Your task to perform on an android device: turn on translation in the chrome app Image 0: 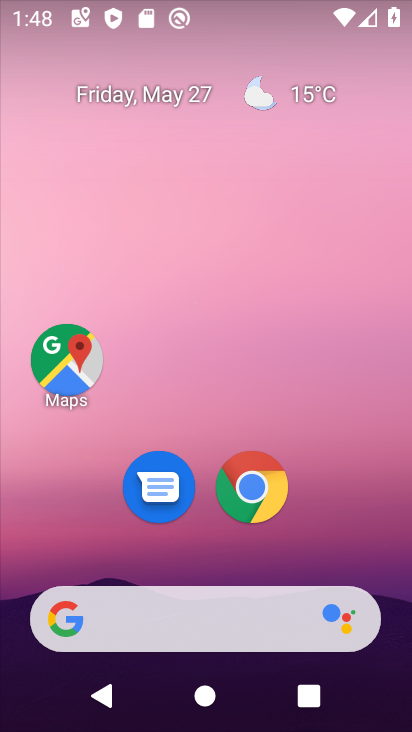
Step 0: click (252, 478)
Your task to perform on an android device: turn on translation in the chrome app Image 1: 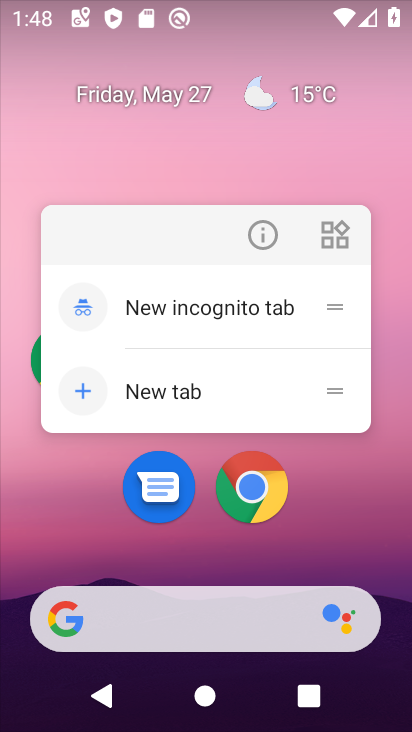
Step 1: click (257, 483)
Your task to perform on an android device: turn on translation in the chrome app Image 2: 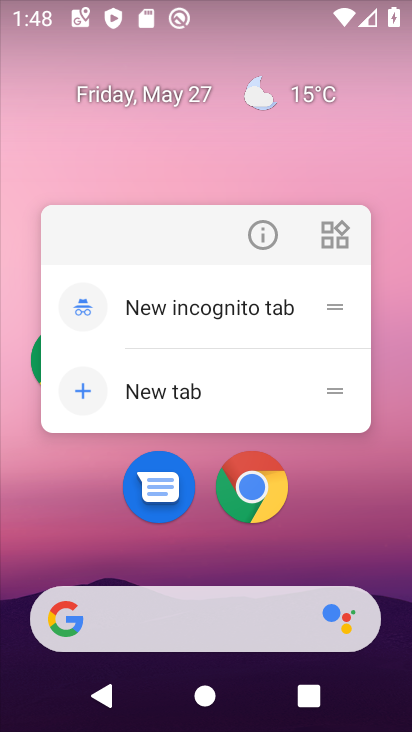
Step 2: click (266, 495)
Your task to perform on an android device: turn on translation in the chrome app Image 3: 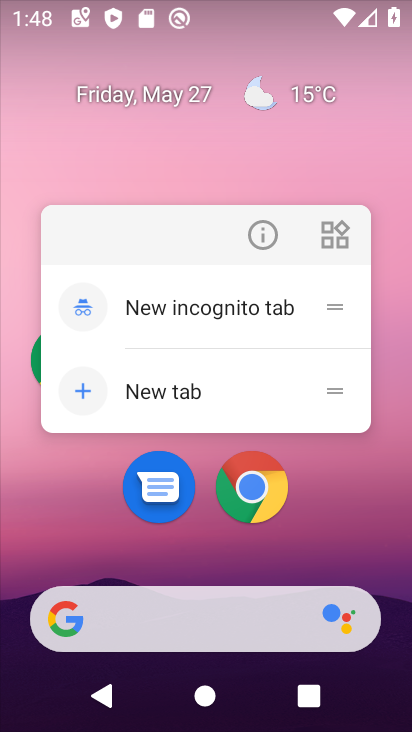
Step 3: click (296, 512)
Your task to perform on an android device: turn on translation in the chrome app Image 4: 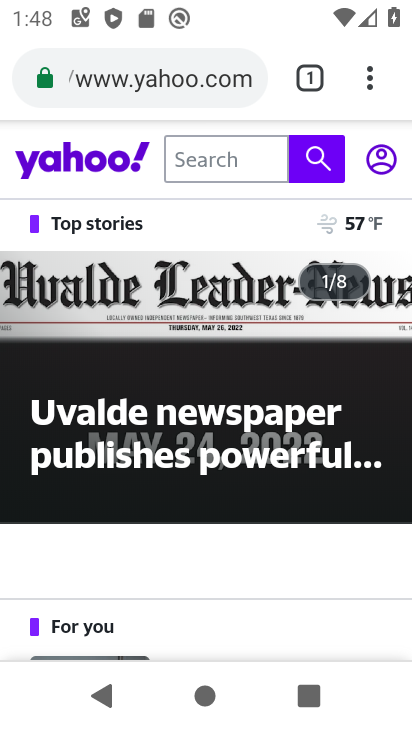
Step 4: click (377, 68)
Your task to perform on an android device: turn on translation in the chrome app Image 5: 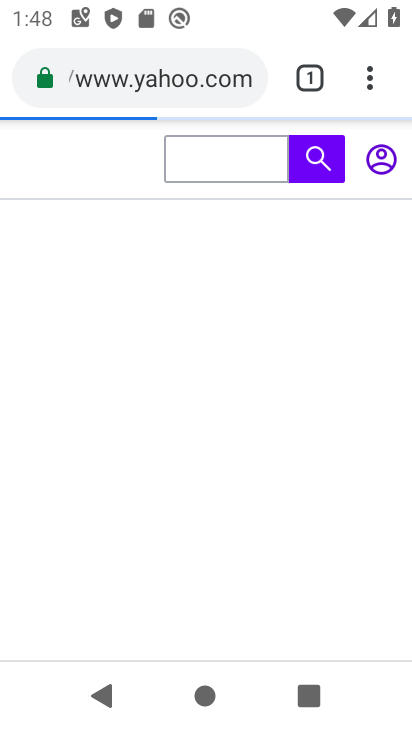
Step 5: drag from (371, 70) to (294, 563)
Your task to perform on an android device: turn on translation in the chrome app Image 6: 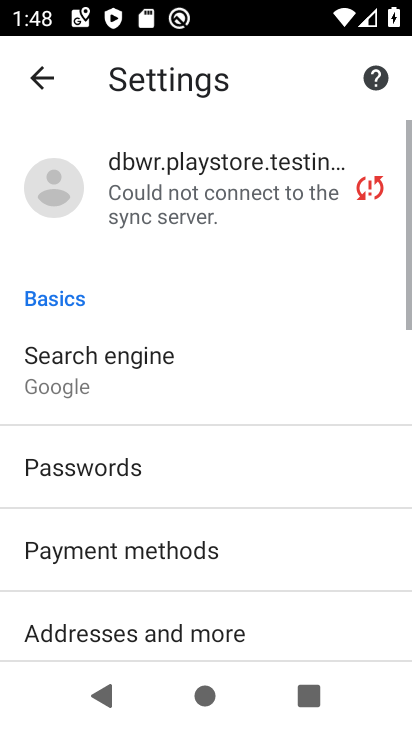
Step 6: drag from (294, 559) to (303, 172)
Your task to perform on an android device: turn on translation in the chrome app Image 7: 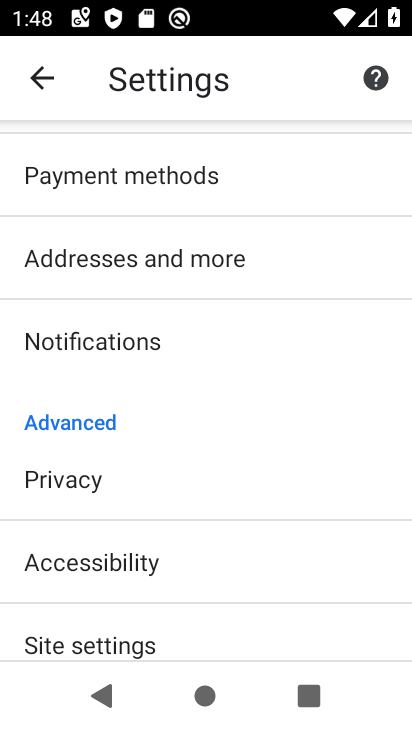
Step 7: drag from (260, 506) to (268, 277)
Your task to perform on an android device: turn on translation in the chrome app Image 8: 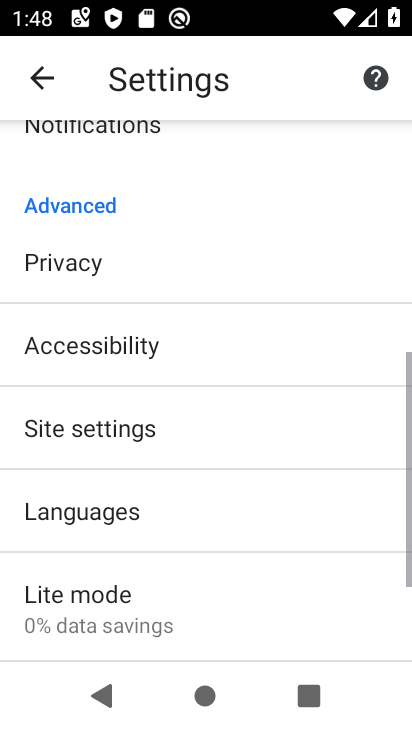
Step 8: click (268, 277)
Your task to perform on an android device: turn on translation in the chrome app Image 9: 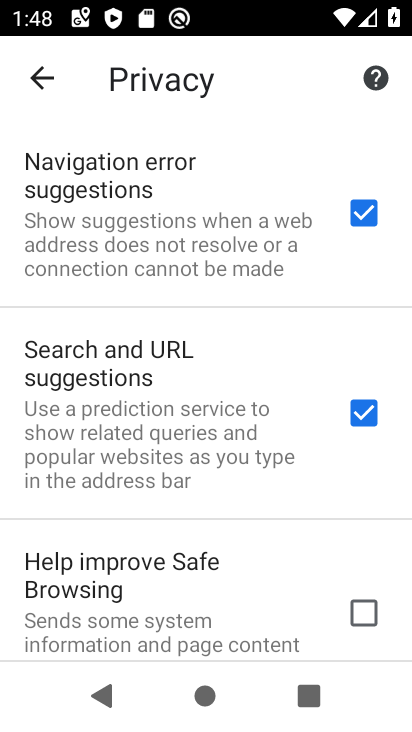
Step 9: click (49, 88)
Your task to perform on an android device: turn on translation in the chrome app Image 10: 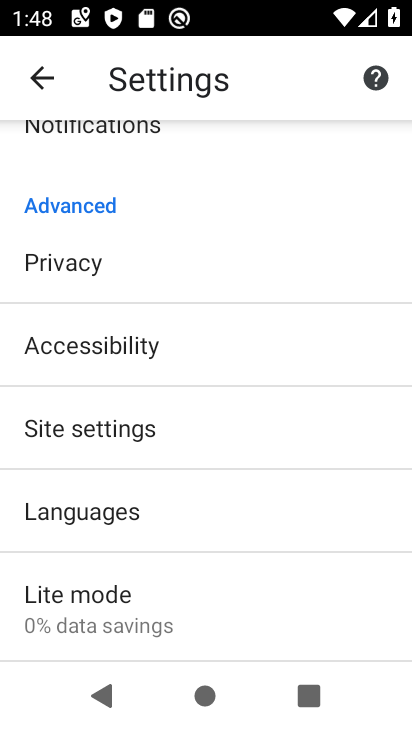
Step 10: click (190, 522)
Your task to perform on an android device: turn on translation in the chrome app Image 11: 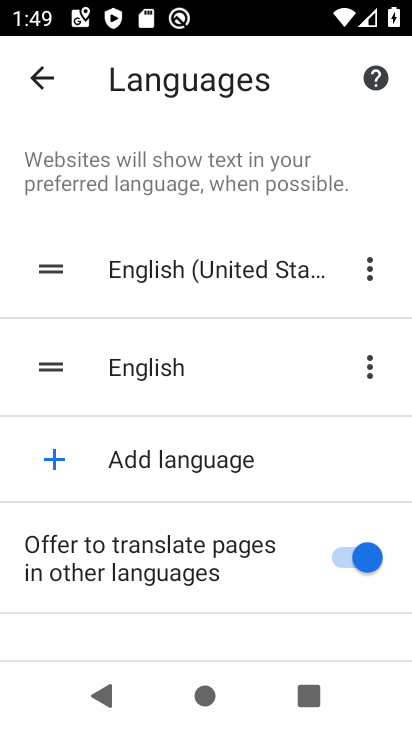
Step 11: task complete